Your task to perform on an android device: What's the weather? Image 0: 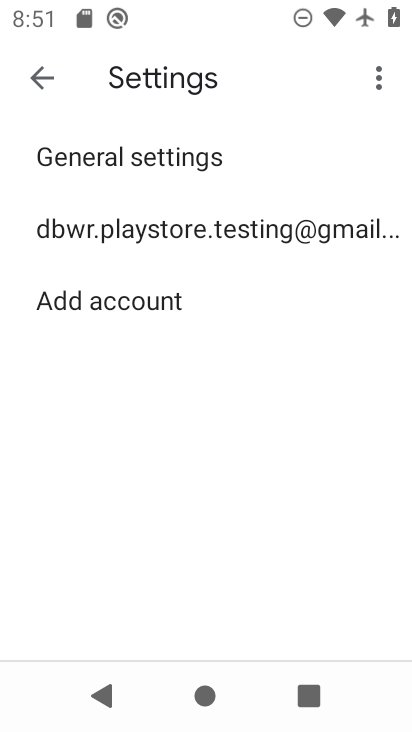
Step 0: press home button
Your task to perform on an android device: What's the weather? Image 1: 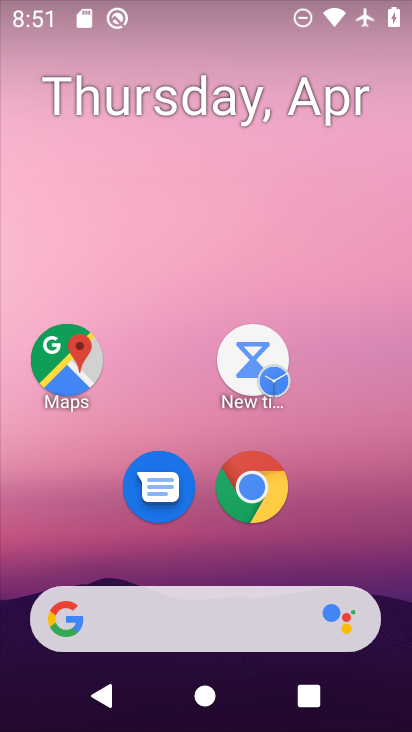
Step 1: click (264, 491)
Your task to perform on an android device: What's the weather? Image 2: 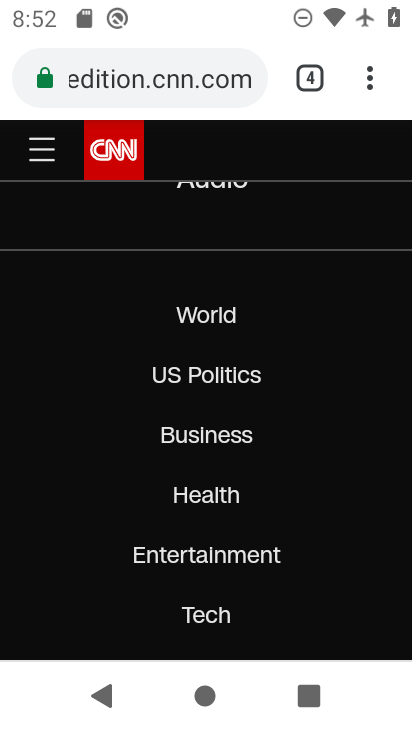
Step 2: click (312, 77)
Your task to perform on an android device: What's the weather? Image 3: 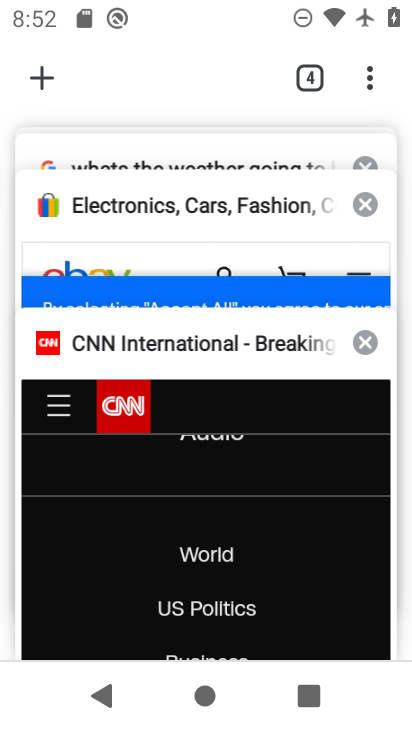
Step 3: drag from (194, 228) to (176, 595)
Your task to perform on an android device: What's the weather? Image 4: 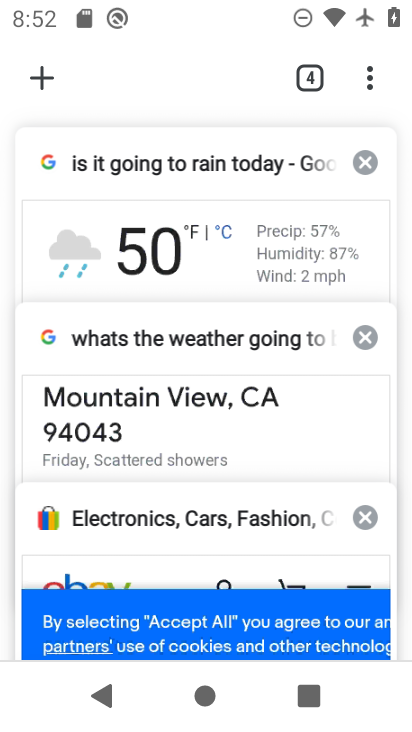
Step 4: click (41, 76)
Your task to perform on an android device: What's the weather? Image 5: 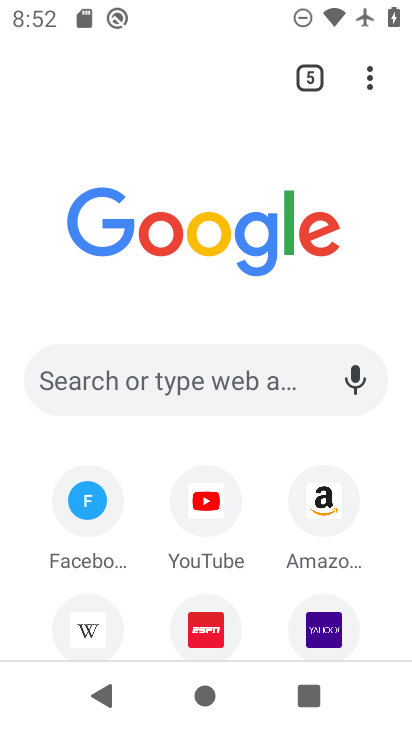
Step 5: click (192, 375)
Your task to perform on an android device: What's the weather? Image 6: 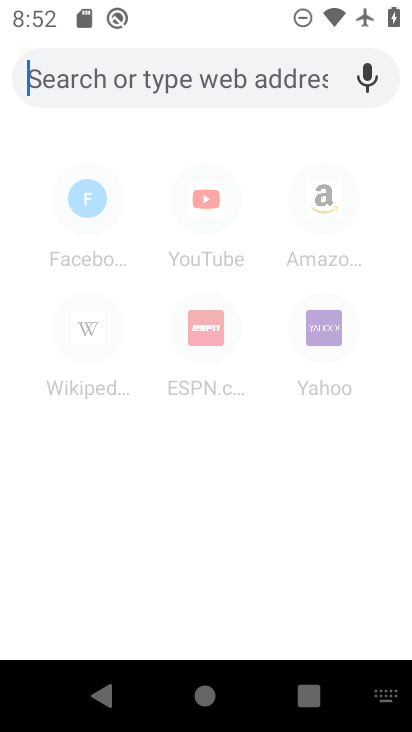
Step 6: type "whats the weather"
Your task to perform on an android device: What's the weather? Image 7: 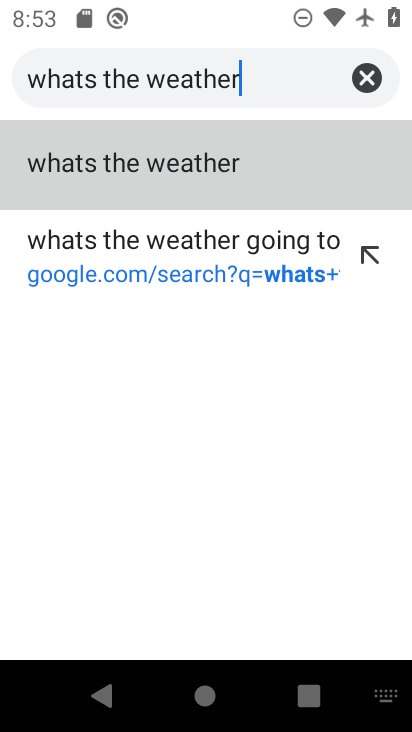
Step 7: click (143, 154)
Your task to perform on an android device: What's the weather? Image 8: 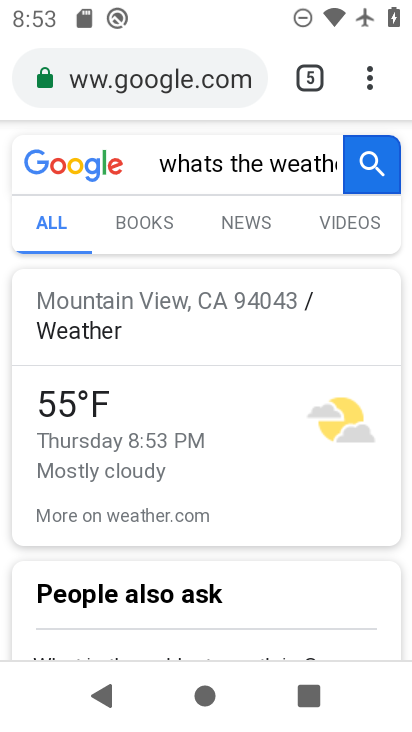
Step 8: task complete